Your task to perform on an android device: remove spam from my inbox in the gmail app Image 0: 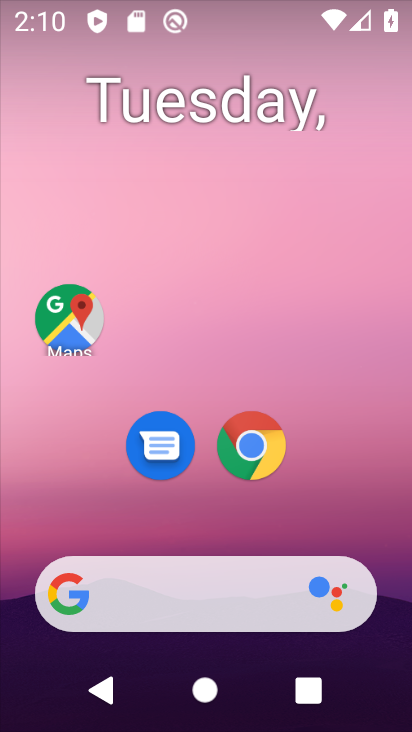
Step 0: drag from (112, 523) to (304, 82)
Your task to perform on an android device: remove spam from my inbox in the gmail app Image 1: 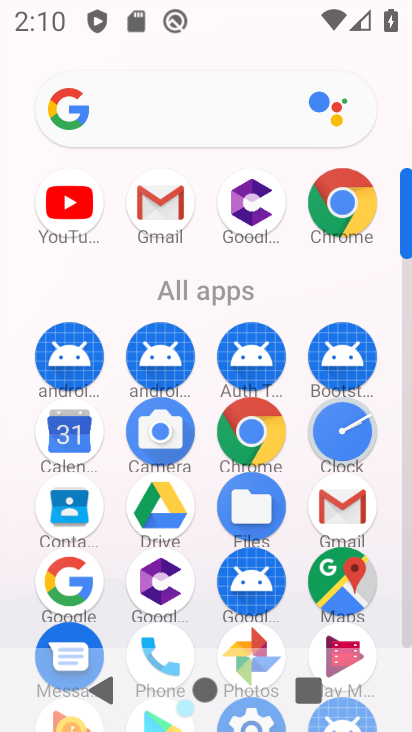
Step 1: click (327, 515)
Your task to perform on an android device: remove spam from my inbox in the gmail app Image 2: 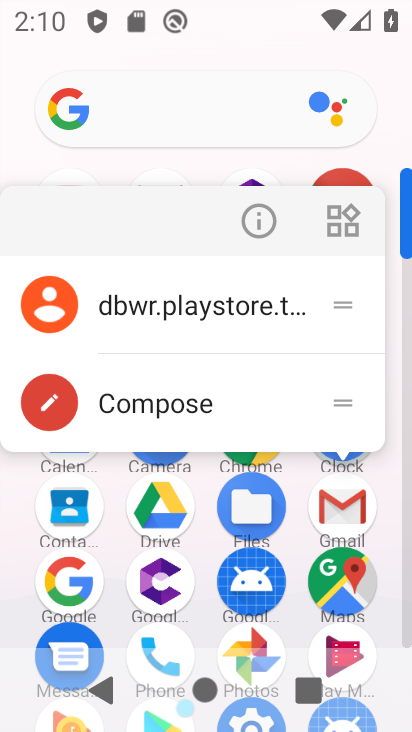
Step 2: click (350, 506)
Your task to perform on an android device: remove spam from my inbox in the gmail app Image 3: 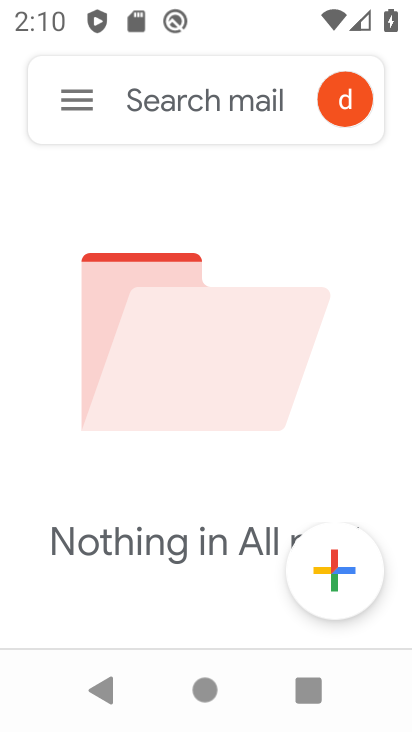
Step 3: click (89, 95)
Your task to perform on an android device: remove spam from my inbox in the gmail app Image 4: 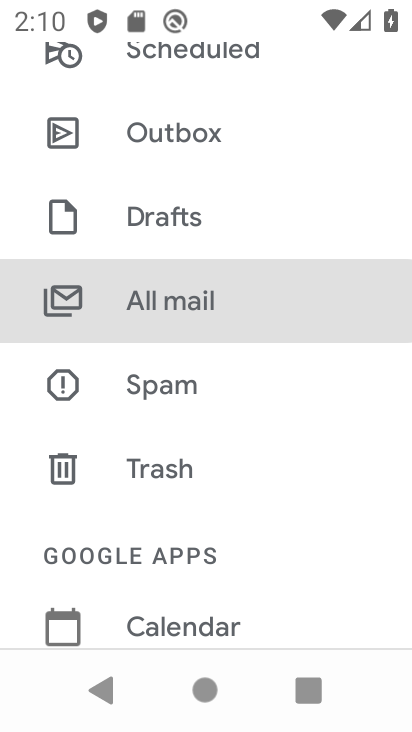
Step 4: click (184, 407)
Your task to perform on an android device: remove spam from my inbox in the gmail app Image 5: 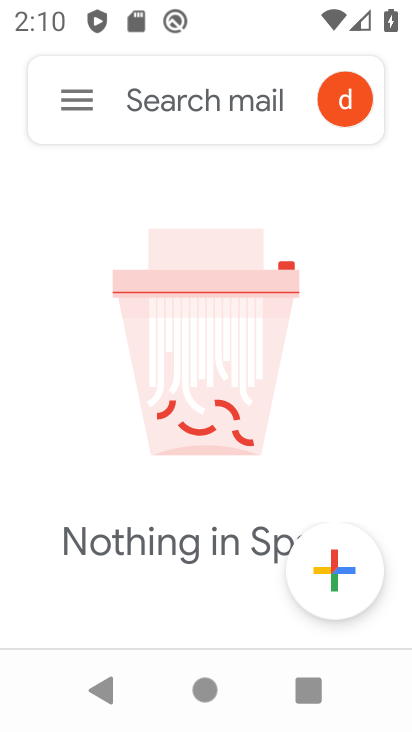
Step 5: task complete